Your task to perform on an android device: add a contact Image 0: 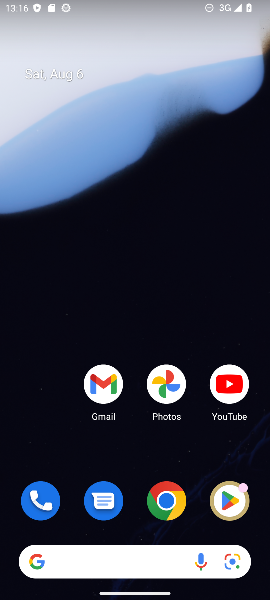
Step 0: click (171, 107)
Your task to perform on an android device: add a contact Image 1: 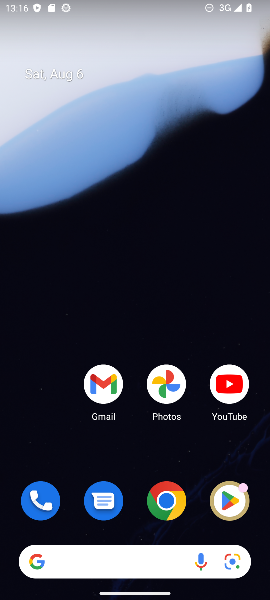
Step 1: drag from (131, 515) to (118, 260)
Your task to perform on an android device: add a contact Image 2: 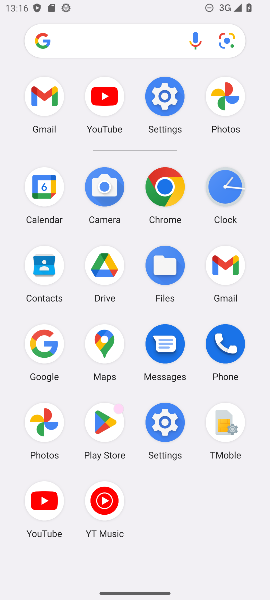
Step 2: click (46, 279)
Your task to perform on an android device: add a contact Image 3: 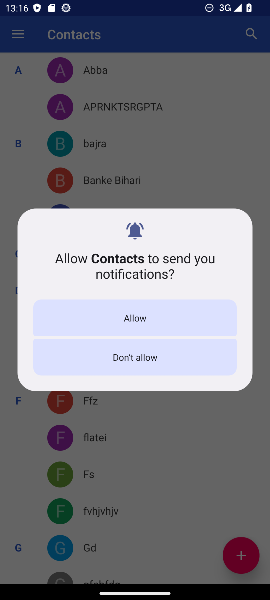
Step 3: click (167, 322)
Your task to perform on an android device: add a contact Image 4: 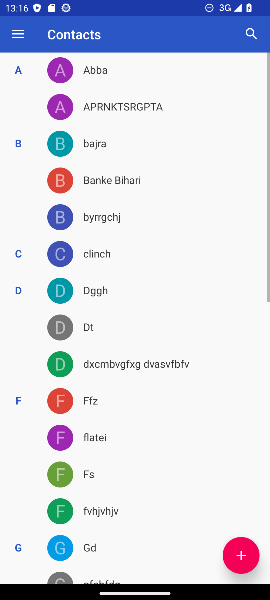
Step 4: click (248, 548)
Your task to perform on an android device: add a contact Image 5: 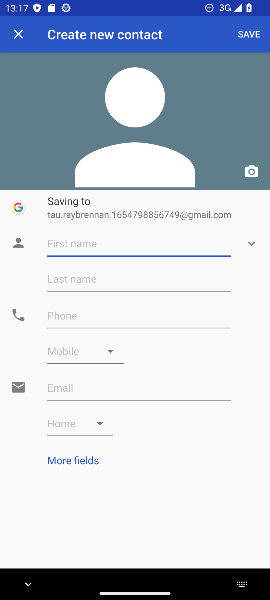
Step 5: type "Naveen"
Your task to perform on an android device: add a contact Image 6: 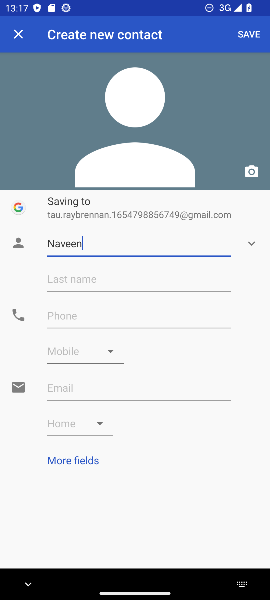
Step 6: click (183, 279)
Your task to perform on an android device: add a contact Image 7: 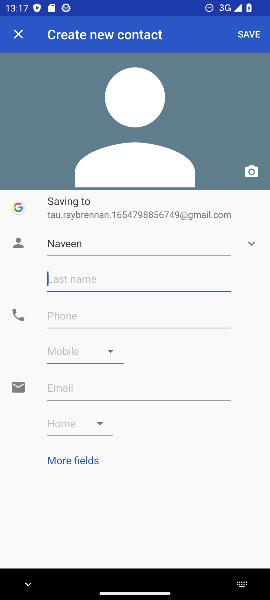
Step 7: type "Sharma"
Your task to perform on an android device: add a contact Image 8: 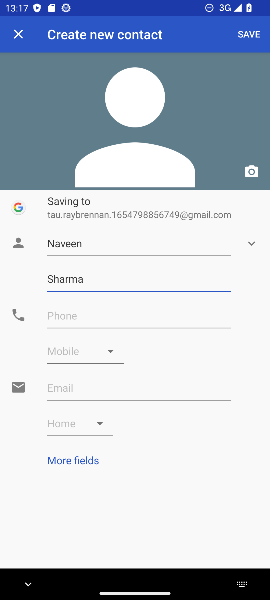
Step 8: click (172, 312)
Your task to perform on an android device: add a contact Image 9: 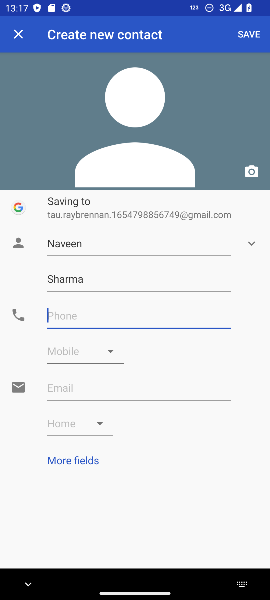
Step 9: type "9098788766"
Your task to perform on an android device: add a contact Image 10: 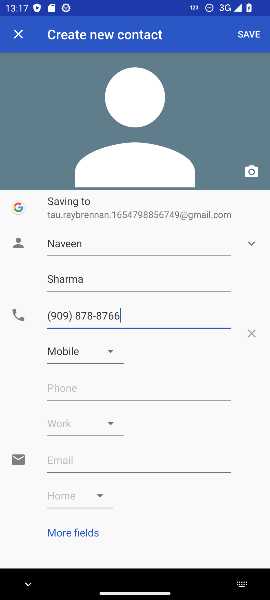
Step 10: click (248, 29)
Your task to perform on an android device: add a contact Image 11: 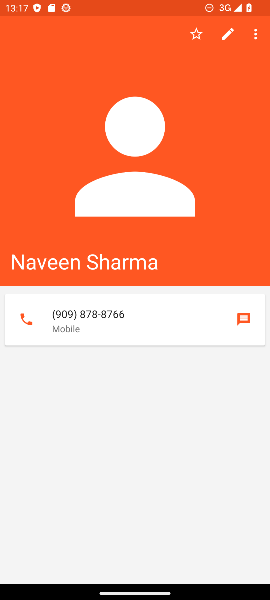
Step 11: press home button
Your task to perform on an android device: add a contact Image 12: 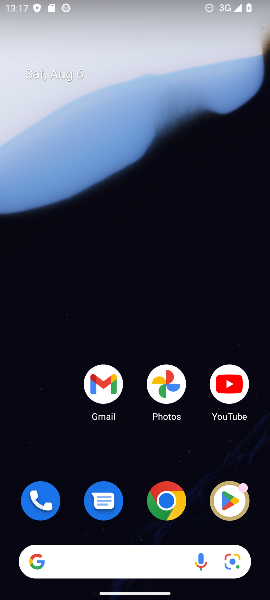
Step 12: drag from (129, 364) to (131, 153)
Your task to perform on an android device: add a contact Image 13: 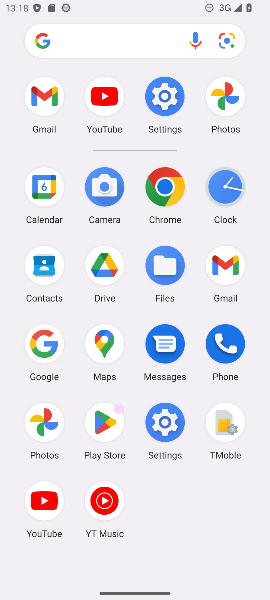
Step 13: click (49, 272)
Your task to perform on an android device: add a contact Image 14: 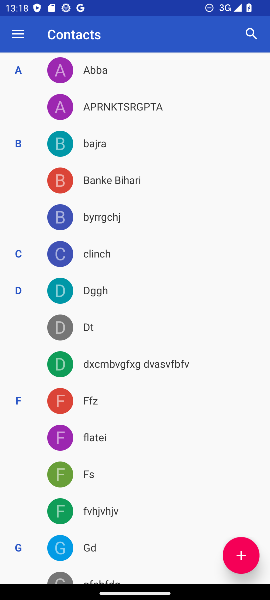
Step 14: click (240, 563)
Your task to perform on an android device: add a contact Image 15: 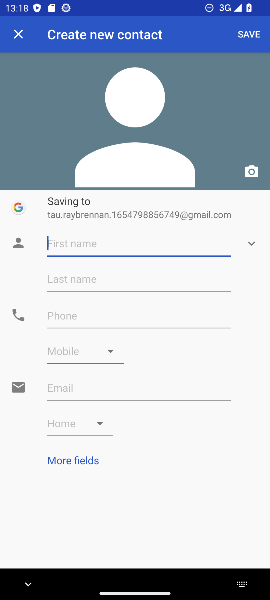
Step 15: type "Dheeraj"
Your task to perform on an android device: add a contact Image 16: 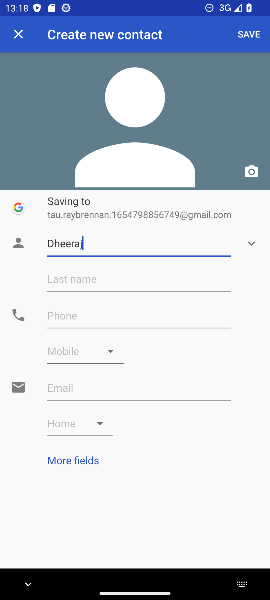
Step 16: click (84, 269)
Your task to perform on an android device: add a contact Image 17: 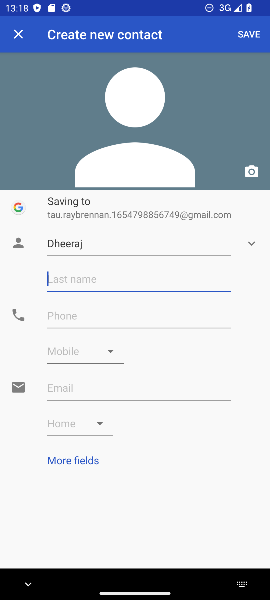
Step 17: type "Sharma"
Your task to perform on an android device: add a contact Image 18: 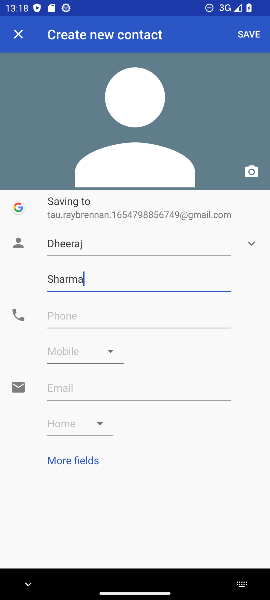
Step 18: click (177, 312)
Your task to perform on an android device: add a contact Image 19: 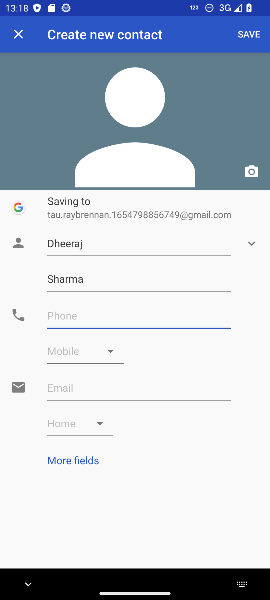
Step 19: type "7654456788"
Your task to perform on an android device: add a contact Image 20: 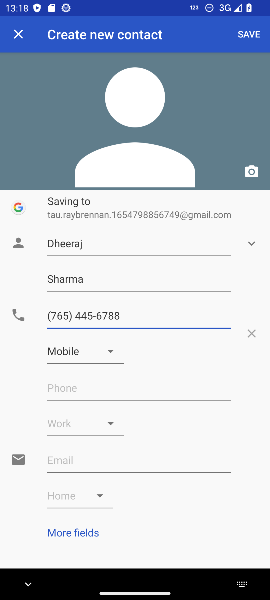
Step 20: click (242, 35)
Your task to perform on an android device: add a contact Image 21: 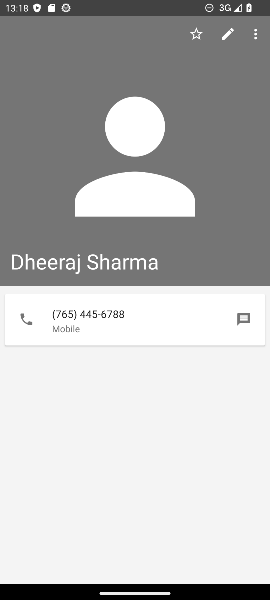
Step 21: task complete